Your task to perform on an android device: turn on translation in the chrome app Image 0: 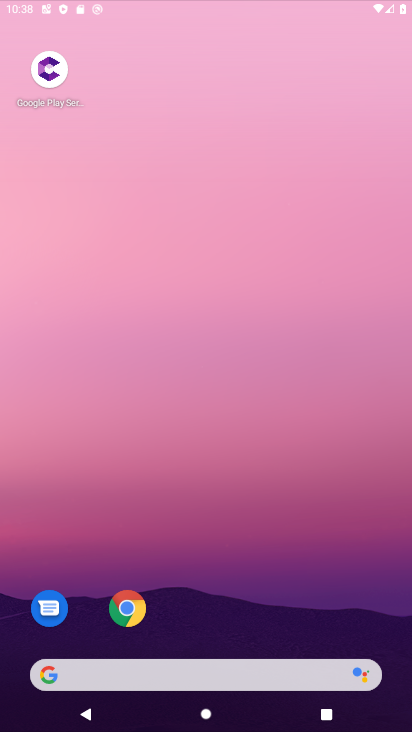
Step 0: click (193, 3)
Your task to perform on an android device: turn on translation in the chrome app Image 1: 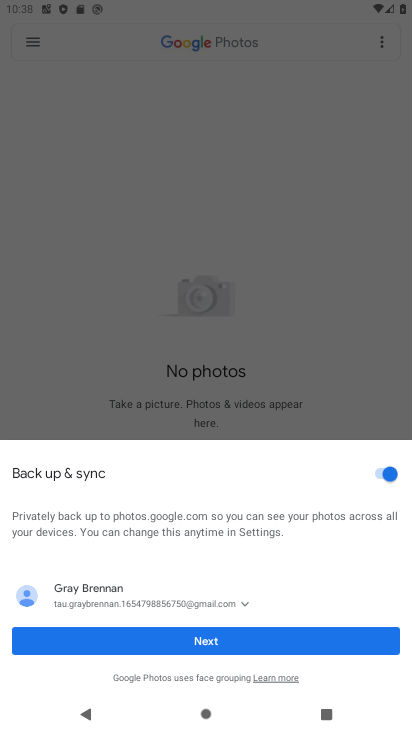
Step 1: press home button
Your task to perform on an android device: turn on translation in the chrome app Image 2: 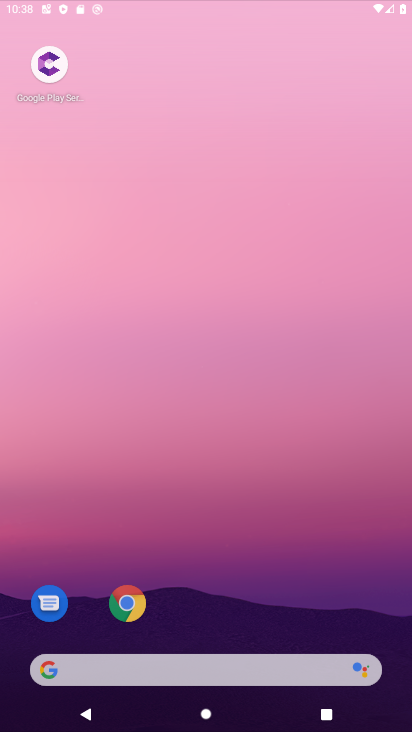
Step 2: drag from (392, 715) to (253, 13)
Your task to perform on an android device: turn on translation in the chrome app Image 3: 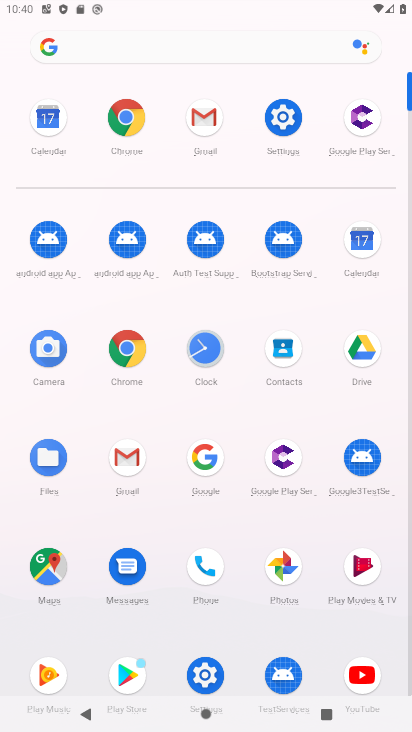
Step 3: click (124, 352)
Your task to perform on an android device: turn on translation in the chrome app Image 4: 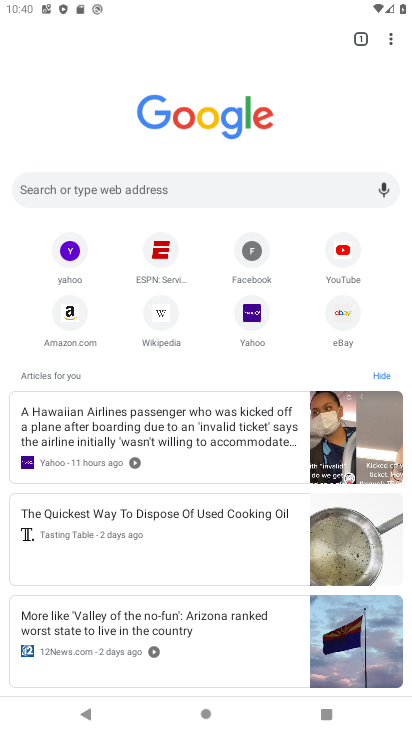
Step 4: click (390, 32)
Your task to perform on an android device: turn on translation in the chrome app Image 5: 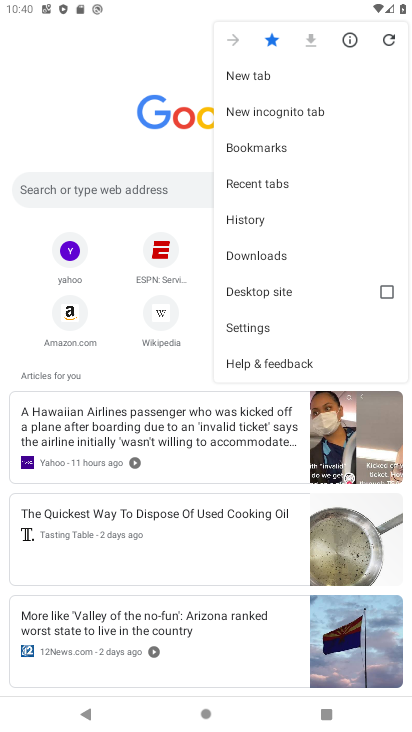
Step 5: click (258, 327)
Your task to perform on an android device: turn on translation in the chrome app Image 6: 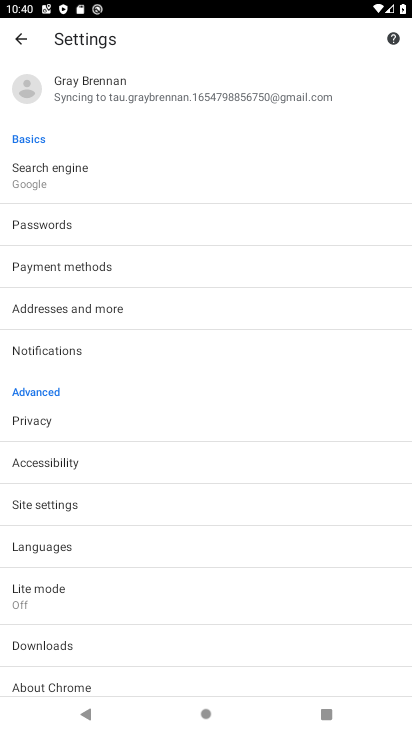
Step 6: click (68, 543)
Your task to perform on an android device: turn on translation in the chrome app Image 7: 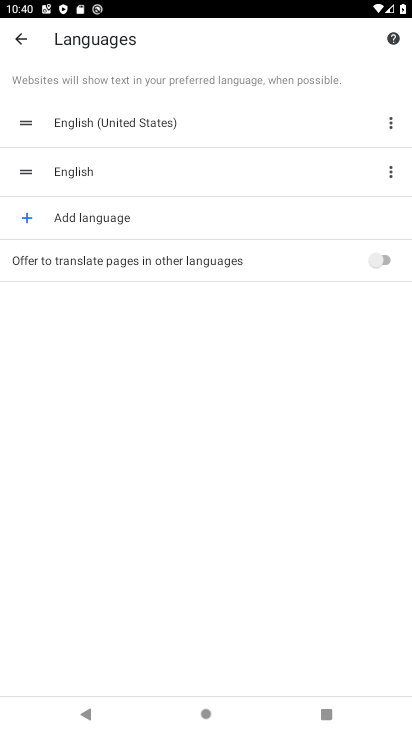
Step 7: click (370, 261)
Your task to perform on an android device: turn on translation in the chrome app Image 8: 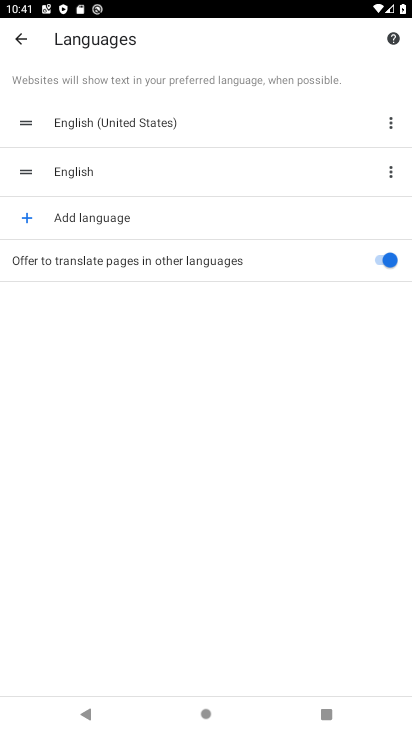
Step 8: task complete